Your task to perform on an android device: change text size in settings app Image 0: 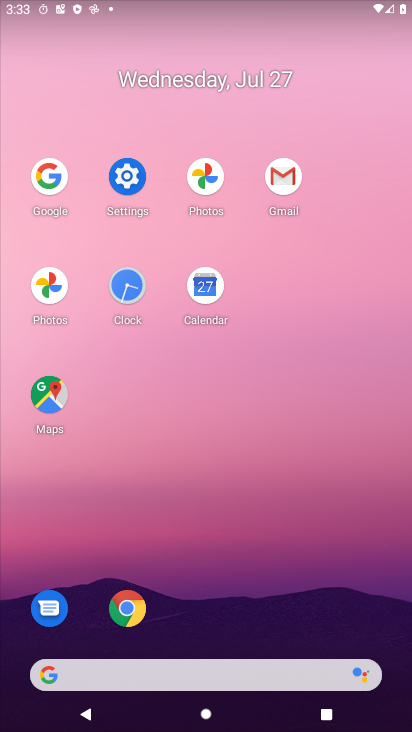
Step 0: click (127, 173)
Your task to perform on an android device: change text size in settings app Image 1: 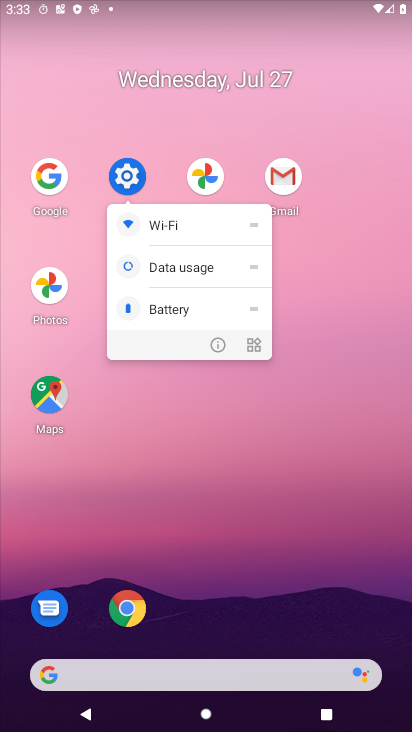
Step 1: click (124, 186)
Your task to perform on an android device: change text size in settings app Image 2: 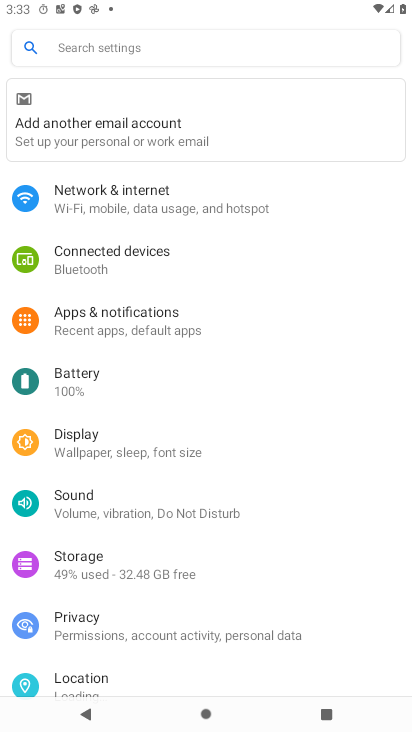
Step 2: drag from (187, 625) to (135, 288)
Your task to perform on an android device: change text size in settings app Image 3: 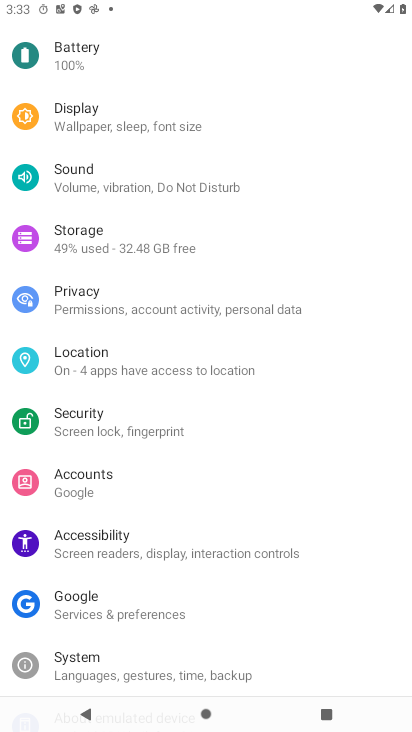
Step 3: click (173, 118)
Your task to perform on an android device: change text size in settings app Image 4: 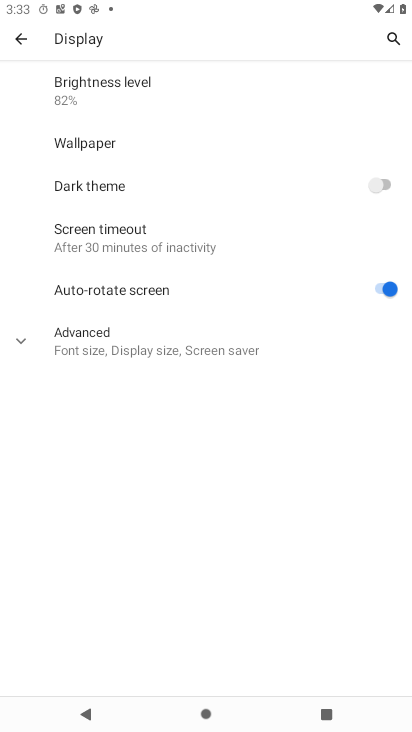
Step 4: click (199, 340)
Your task to perform on an android device: change text size in settings app Image 5: 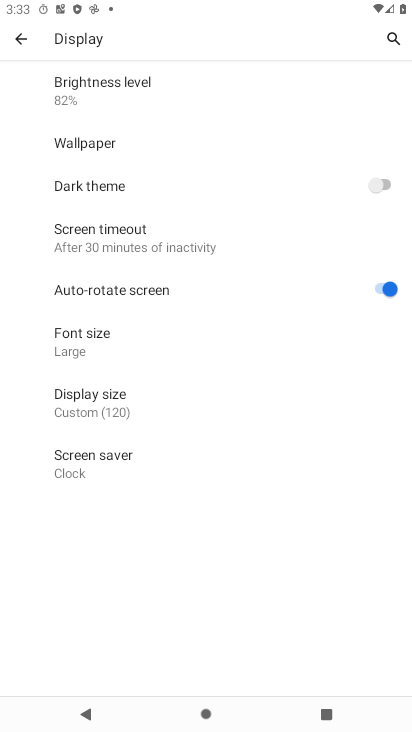
Step 5: click (113, 342)
Your task to perform on an android device: change text size in settings app Image 6: 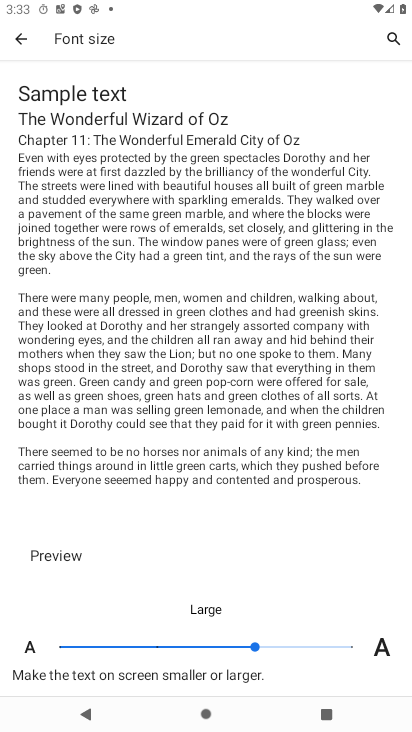
Step 6: click (348, 653)
Your task to perform on an android device: change text size in settings app Image 7: 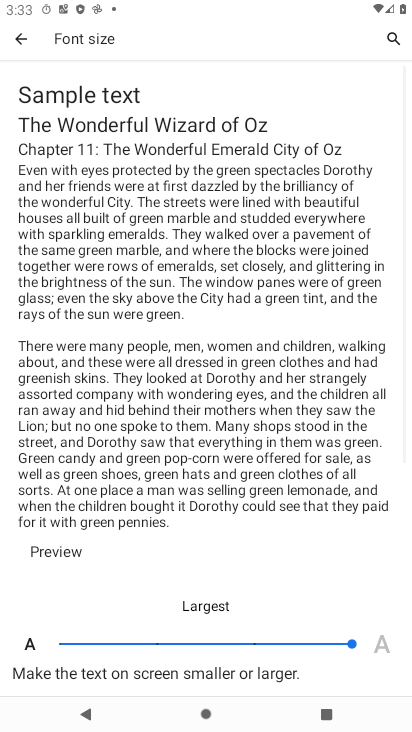
Step 7: task complete